Your task to perform on an android device: see tabs open on other devices in the chrome app Image 0: 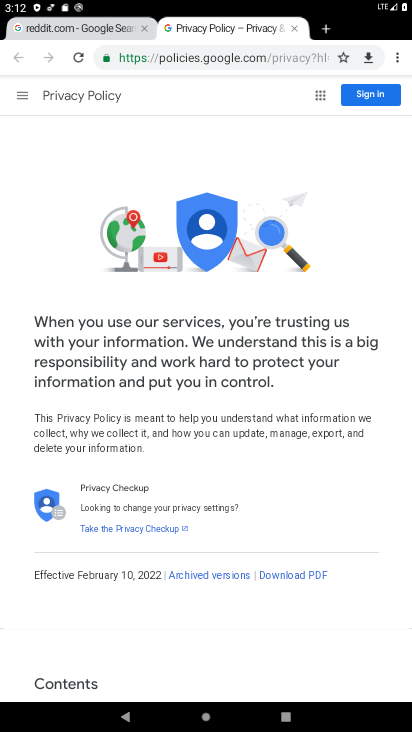
Step 0: press back button
Your task to perform on an android device: see tabs open on other devices in the chrome app Image 1: 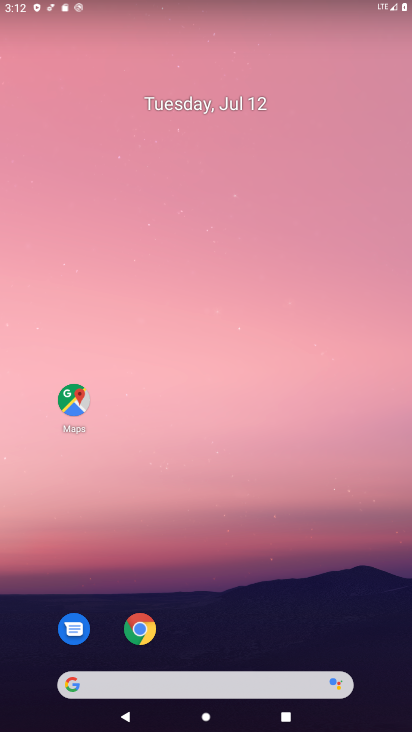
Step 1: drag from (258, 606) to (242, 203)
Your task to perform on an android device: see tabs open on other devices in the chrome app Image 2: 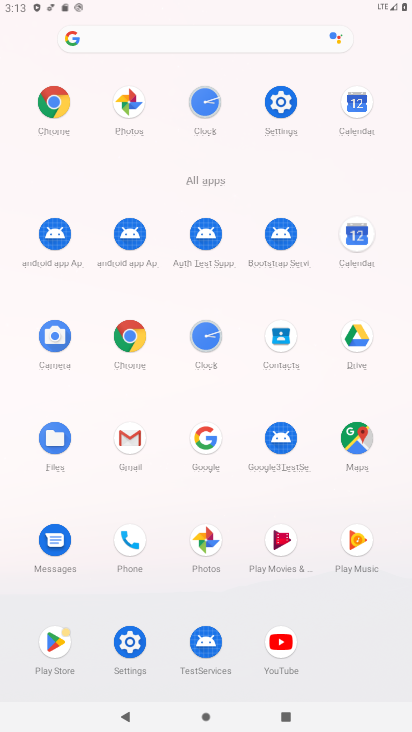
Step 2: click (128, 331)
Your task to perform on an android device: see tabs open on other devices in the chrome app Image 3: 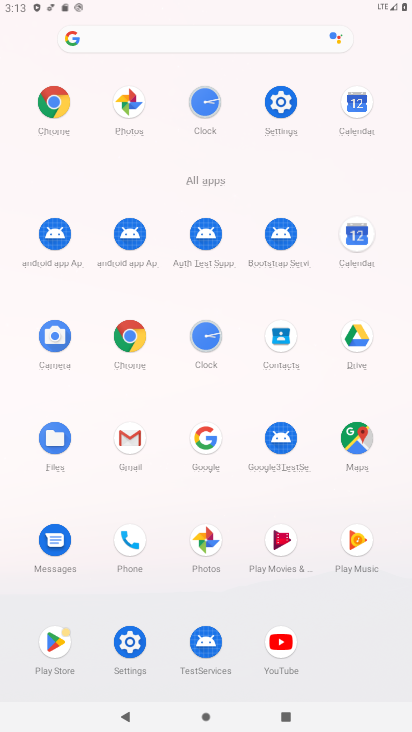
Step 3: click (134, 338)
Your task to perform on an android device: see tabs open on other devices in the chrome app Image 4: 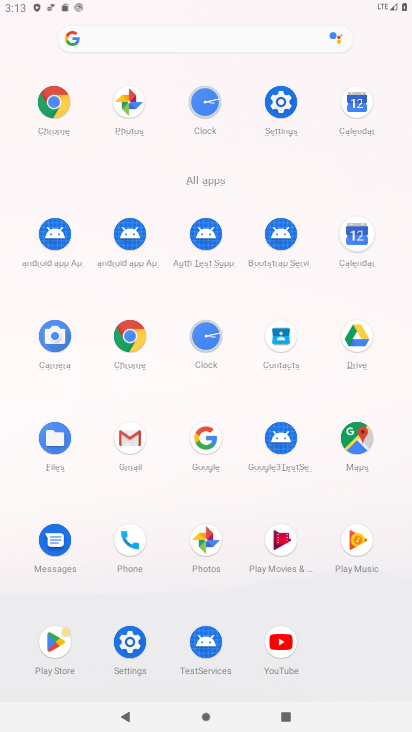
Step 4: click (134, 338)
Your task to perform on an android device: see tabs open on other devices in the chrome app Image 5: 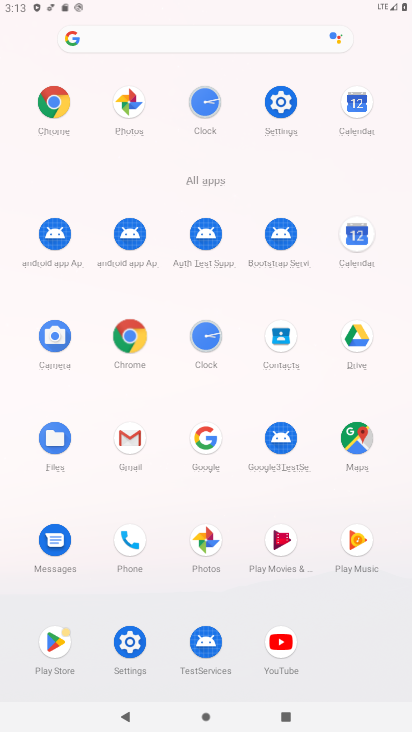
Step 5: click (134, 338)
Your task to perform on an android device: see tabs open on other devices in the chrome app Image 6: 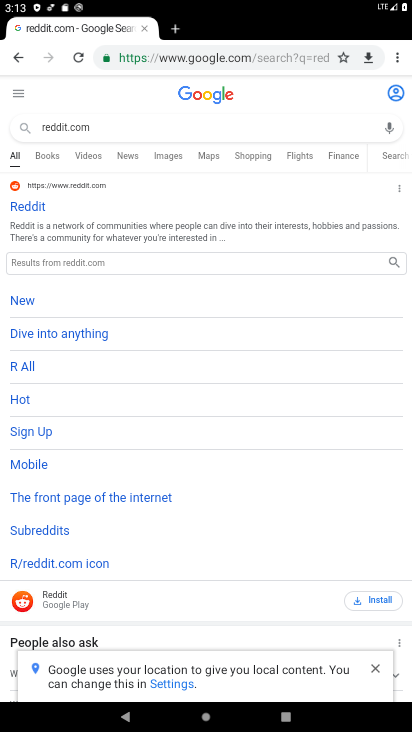
Step 6: drag from (197, 484) to (205, 201)
Your task to perform on an android device: see tabs open on other devices in the chrome app Image 7: 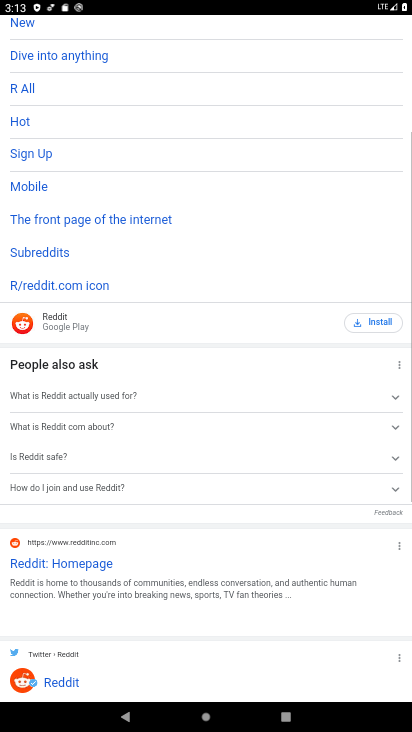
Step 7: drag from (183, 579) to (186, 300)
Your task to perform on an android device: see tabs open on other devices in the chrome app Image 8: 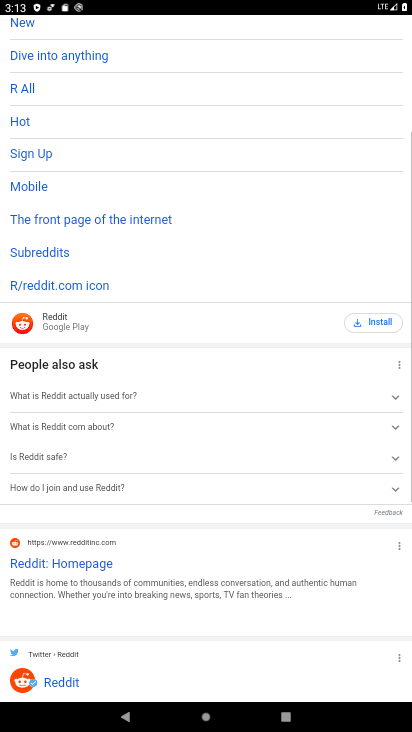
Step 8: drag from (271, 530) to (273, 294)
Your task to perform on an android device: see tabs open on other devices in the chrome app Image 9: 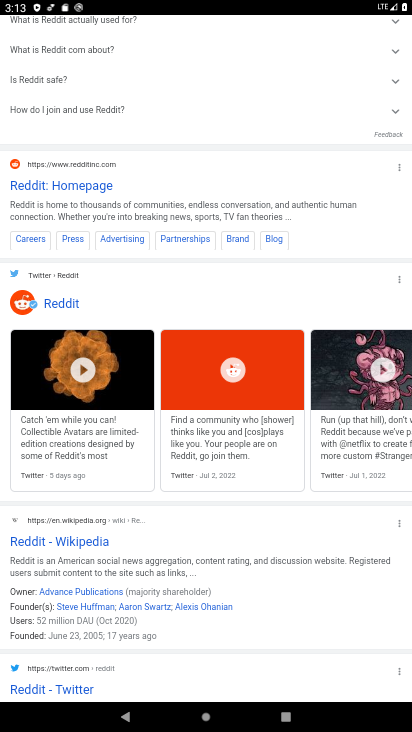
Step 9: drag from (275, 163) to (253, 692)
Your task to perform on an android device: see tabs open on other devices in the chrome app Image 10: 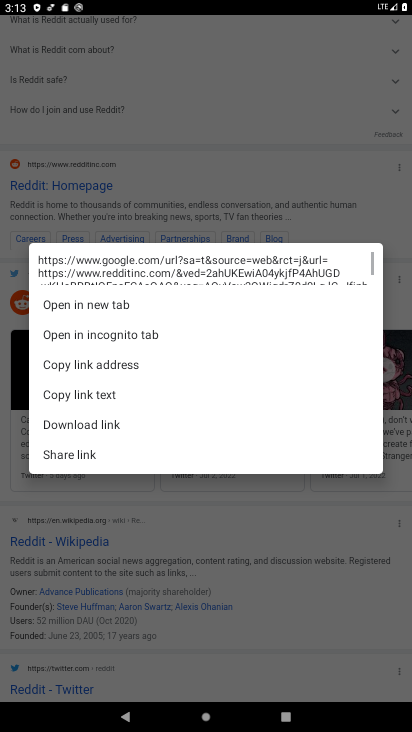
Step 10: drag from (221, 393) to (274, 671)
Your task to perform on an android device: see tabs open on other devices in the chrome app Image 11: 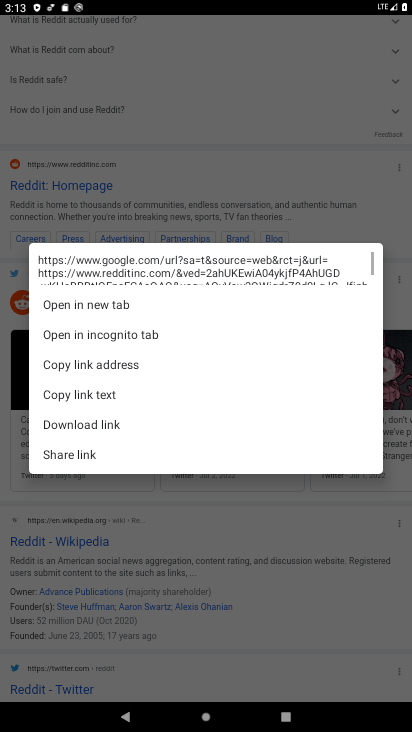
Step 11: drag from (170, 479) to (189, 651)
Your task to perform on an android device: see tabs open on other devices in the chrome app Image 12: 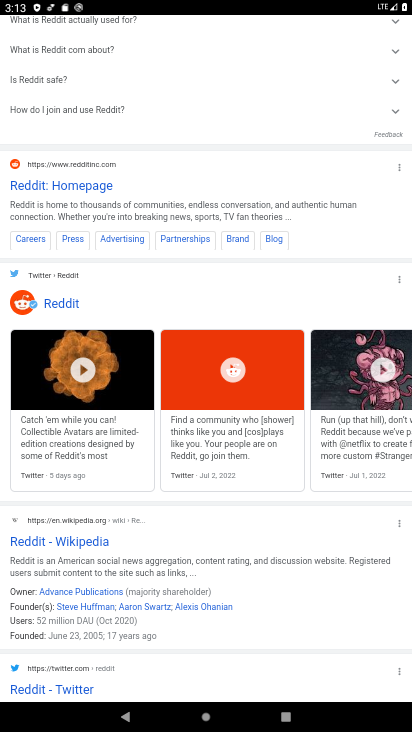
Step 12: drag from (114, 249) to (148, 602)
Your task to perform on an android device: see tabs open on other devices in the chrome app Image 13: 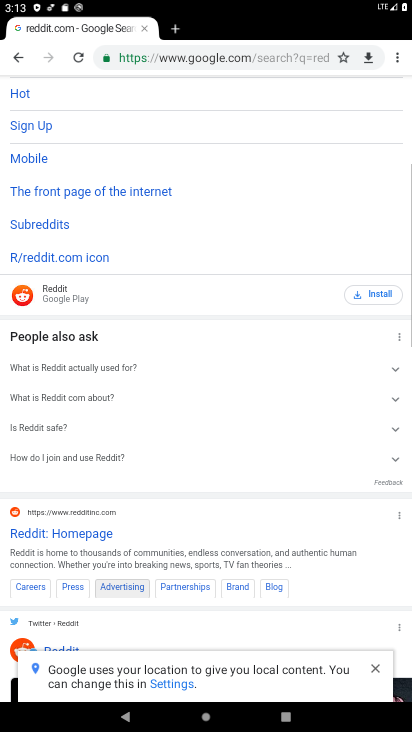
Step 13: click (148, 490)
Your task to perform on an android device: see tabs open on other devices in the chrome app Image 14: 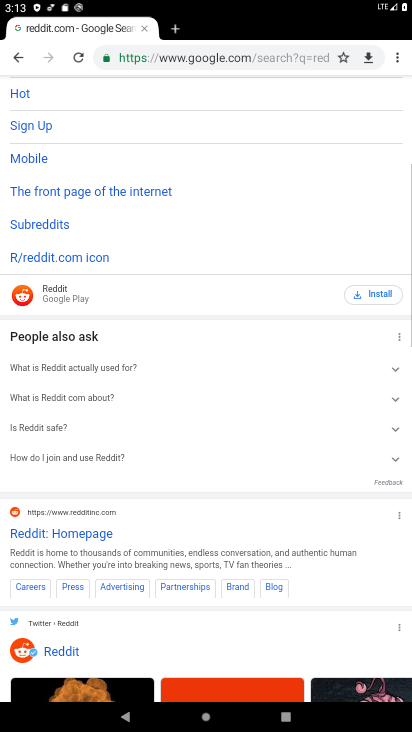
Step 14: drag from (141, 465) to (165, 623)
Your task to perform on an android device: see tabs open on other devices in the chrome app Image 15: 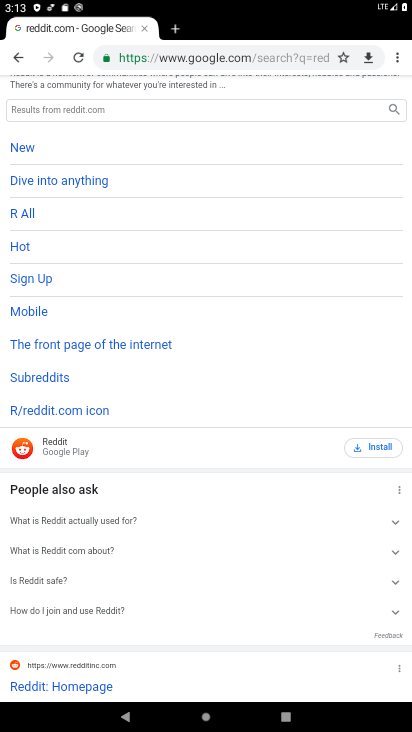
Step 15: drag from (157, 422) to (135, 690)
Your task to perform on an android device: see tabs open on other devices in the chrome app Image 16: 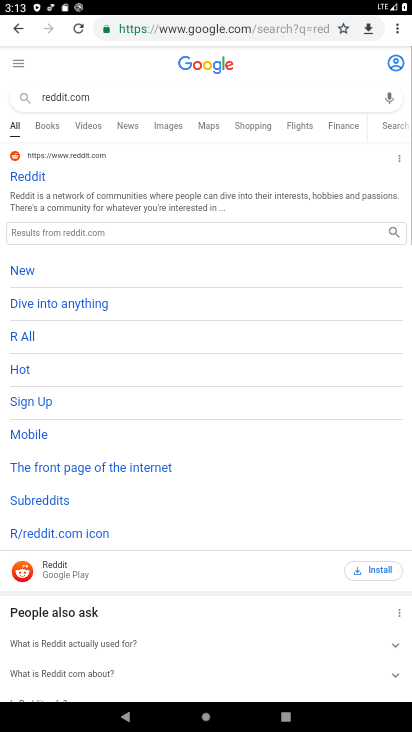
Step 16: drag from (30, 146) to (239, 685)
Your task to perform on an android device: see tabs open on other devices in the chrome app Image 17: 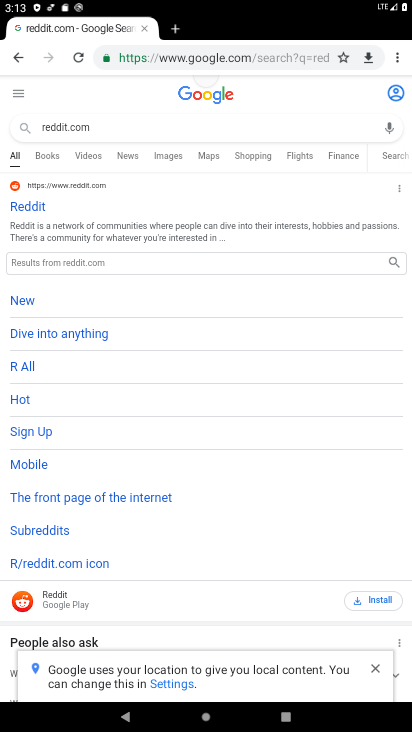
Step 17: drag from (159, 272) to (260, 688)
Your task to perform on an android device: see tabs open on other devices in the chrome app Image 18: 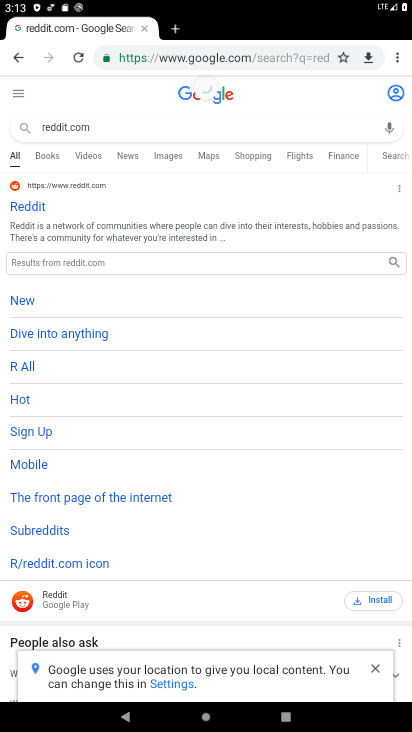
Step 18: drag from (271, 374) to (405, 533)
Your task to perform on an android device: see tabs open on other devices in the chrome app Image 19: 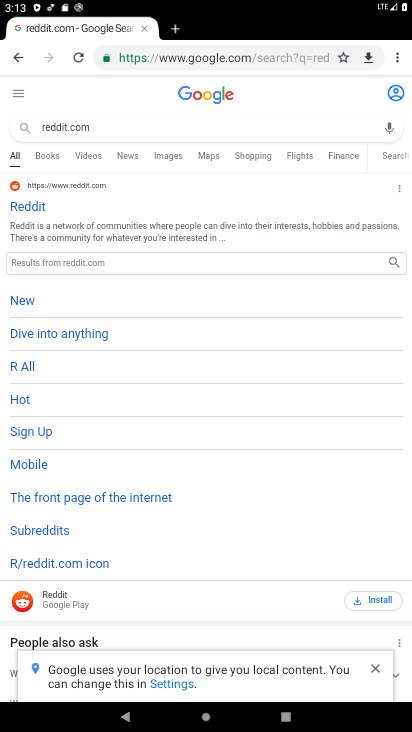
Step 19: click (401, 56)
Your task to perform on an android device: see tabs open on other devices in the chrome app Image 20: 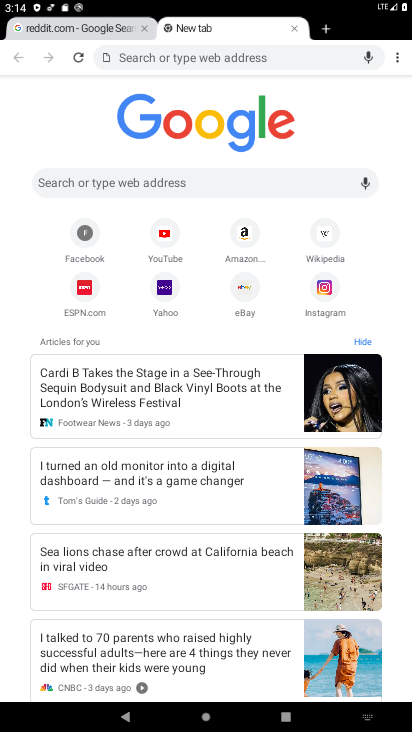
Step 20: click (404, 59)
Your task to perform on an android device: see tabs open on other devices in the chrome app Image 21: 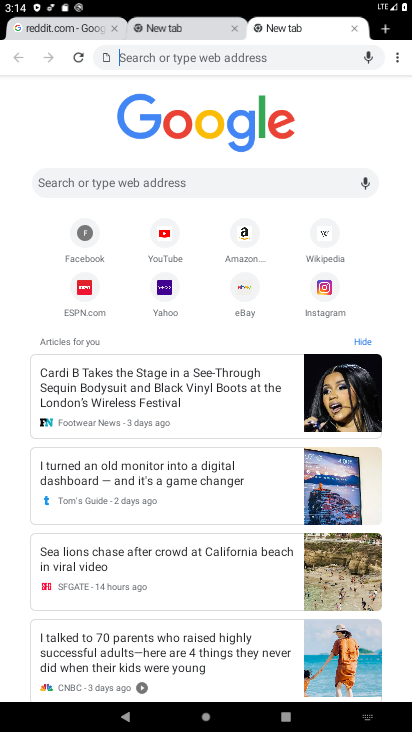
Step 21: click (398, 53)
Your task to perform on an android device: see tabs open on other devices in the chrome app Image 22: 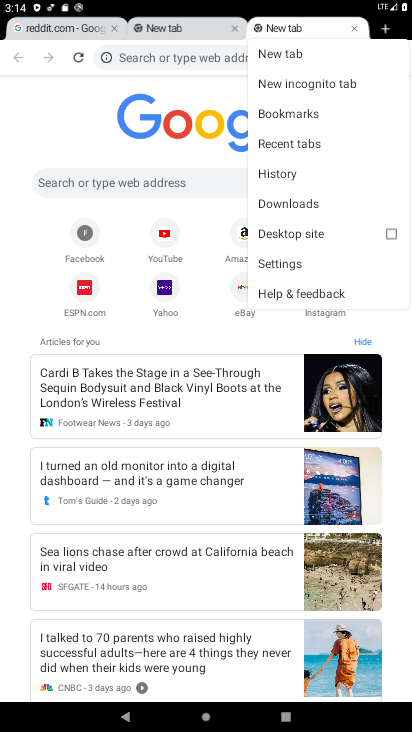
Step 22: click (275, 143)
Your task to perform on an android device: see tabs open on other devices in the chrome app Image 23: 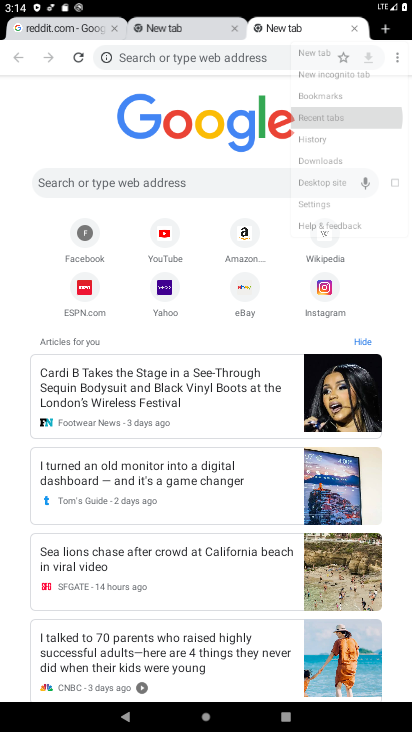
Step 23: click (275, 143)
Your task to perform on an android device: see tabs open on other devices in the chrome app Image 24: 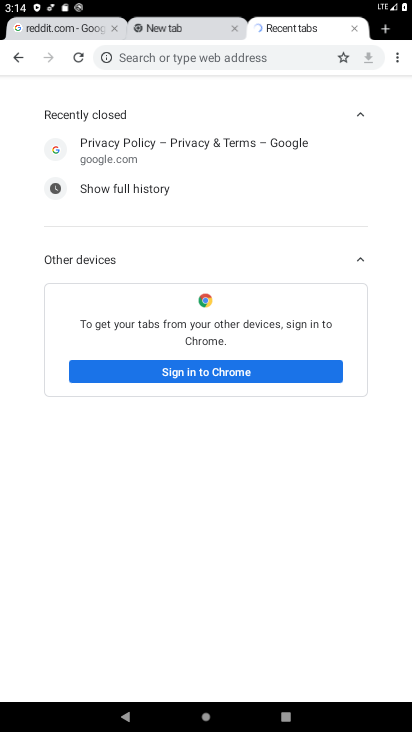
Step 24: click (274, 140)
Your task to perform on an android device: see tabs open on other devices in the chrome app Image 25: 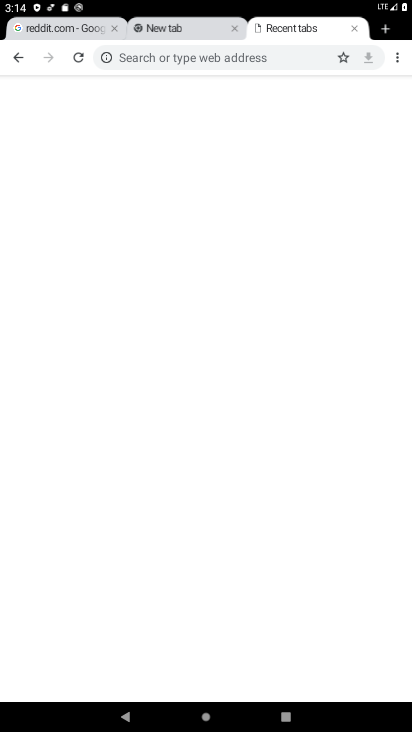
Step 25: click (274, 140)
Your task to perform on an android device: see tabs open on other devices in the chrome app Image 26: 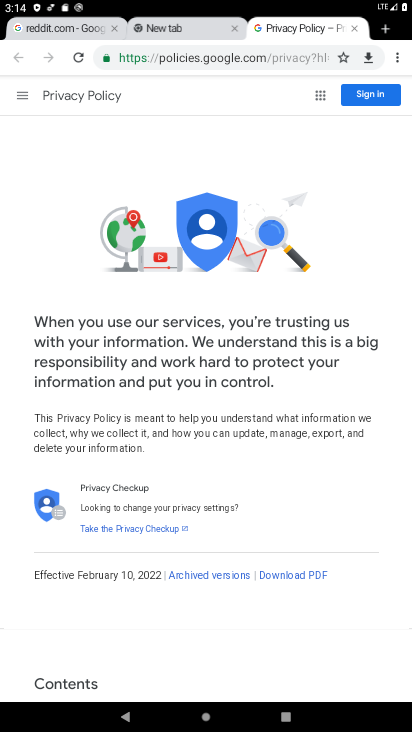
Step 26: task complete